Your task to perform on an android device: open chrome privacy settings Image 0: 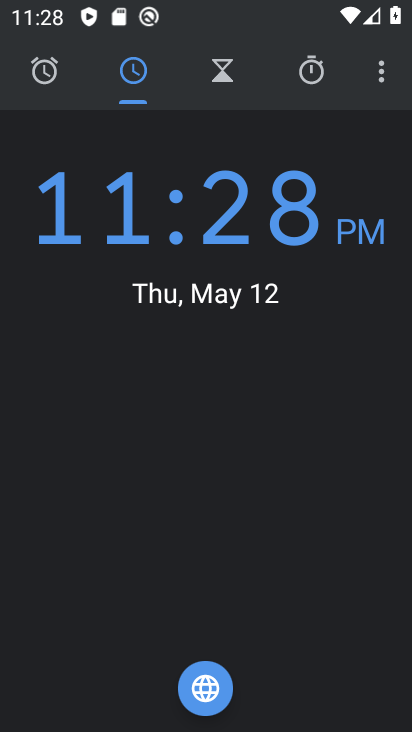
Step 0: press home button
Your task to perform on an android device: open chrome privacy settings Image 1: 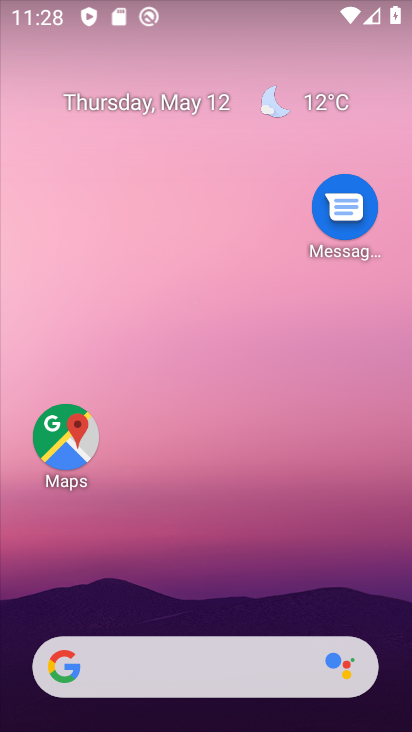
Step 1: drag from (167, 550) to (214, 0)
Your task to perform on an android device: open chrome privacy settings Image 2: 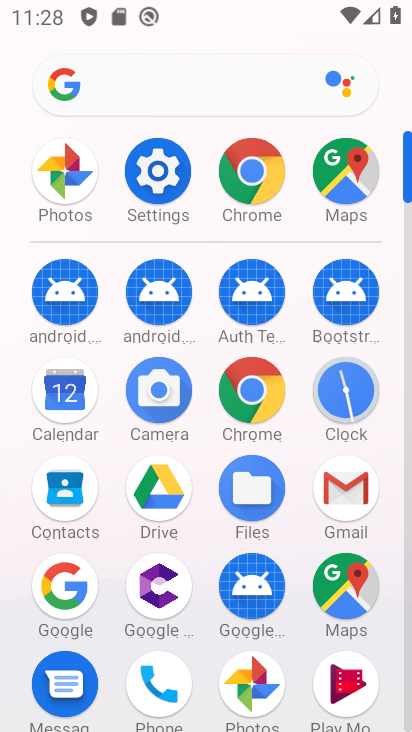
Step 2: click (270, 408)
Your task to perform on an android device: open chrome privacy settings Image 3: 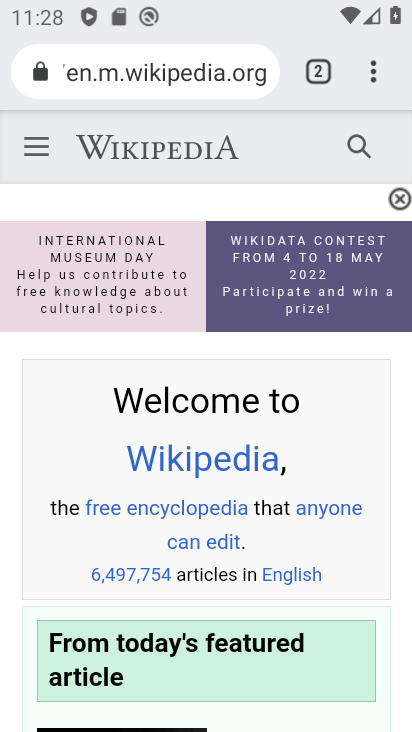
Step 3: drag from (374, 74) to (223, 568)
Your task to perform on an android device: open chrome privacy settings Image 4: 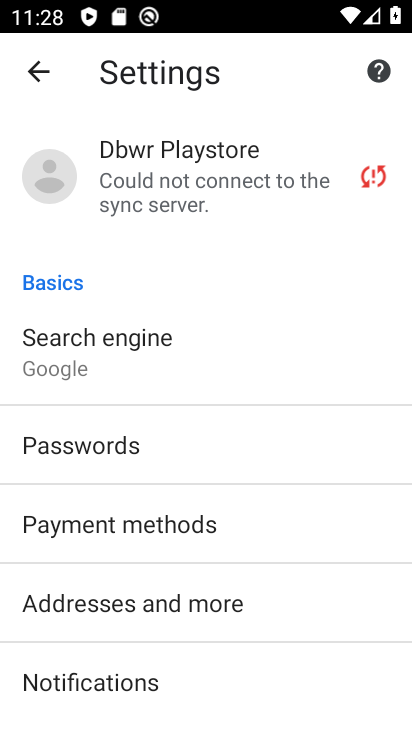
Step 4: drag from (217, 568) to (255, 221)
Your task to perform on an android device: open chrome privacy settings Image 5: 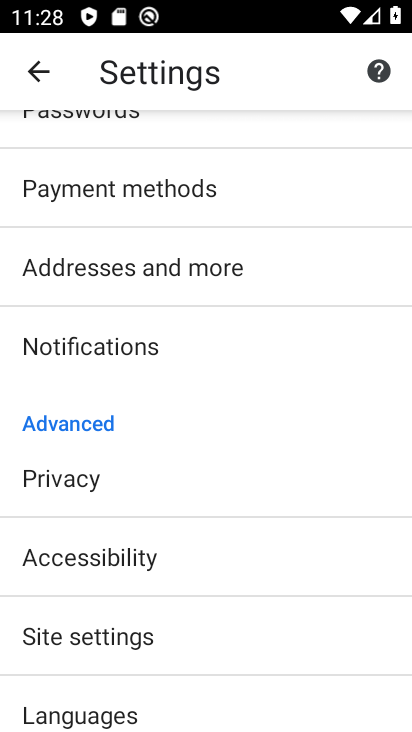
Step 5: click (232, 488)
Your task to perform on an android device: open chrome privacy settings Image 6: 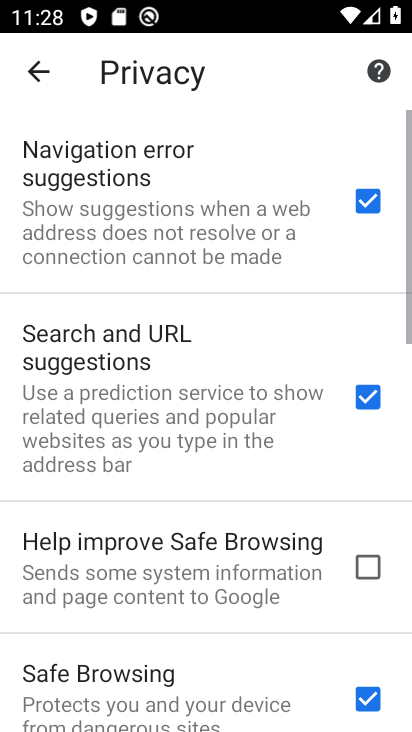
Step 6: task complete